Your task to perform on an android device: change timer sound Image 0: 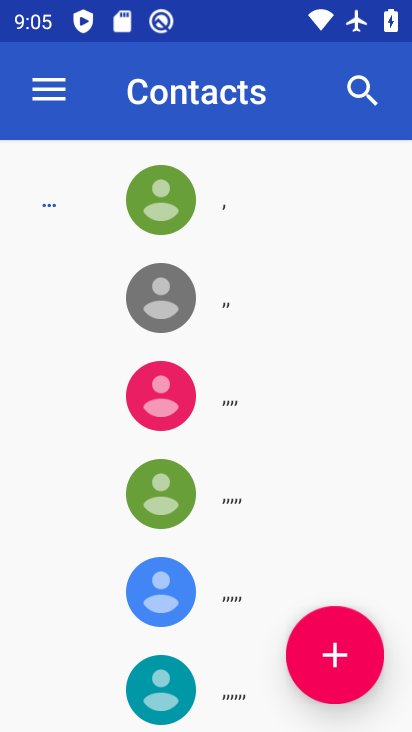
Step 0: press home button
Your task to perform on an android device: change timer sound Image 1: 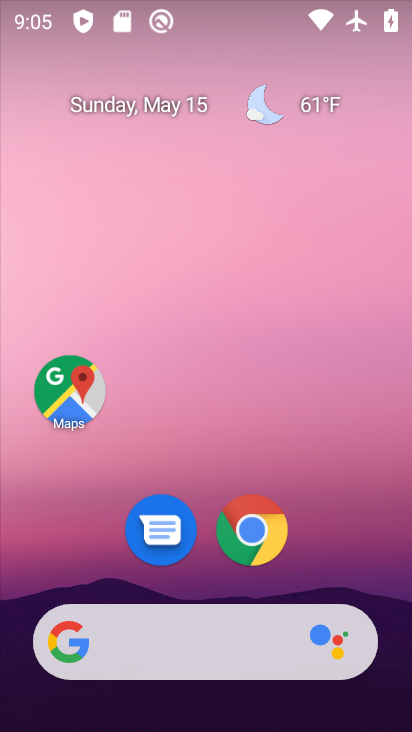
Step 1: drag from (213, 684) to (209, 113)
Your task to perform on an android device: change timer sound Image 2: 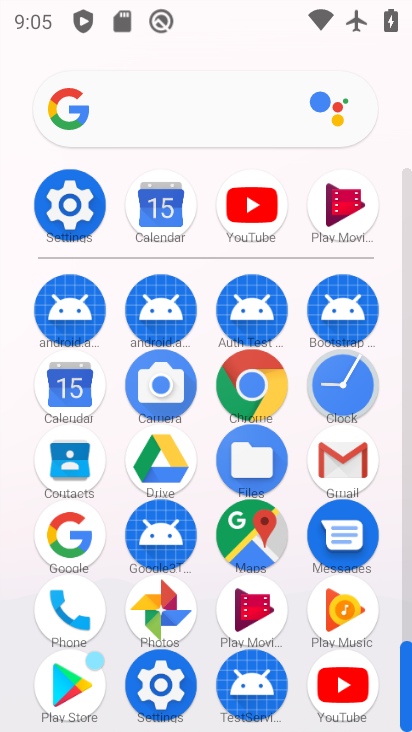
Step 2: click (349, 387)
Your task to perform on an android device: change timer sound Image 3: 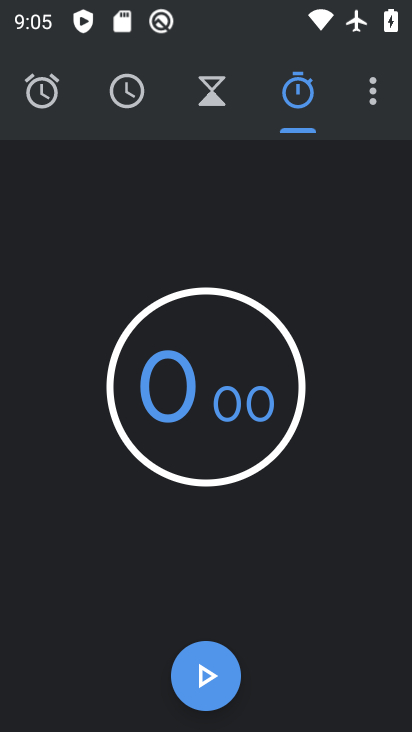
Step 3: click (373, 99)
Your task to perform on an android device: change timer sound Image 4: 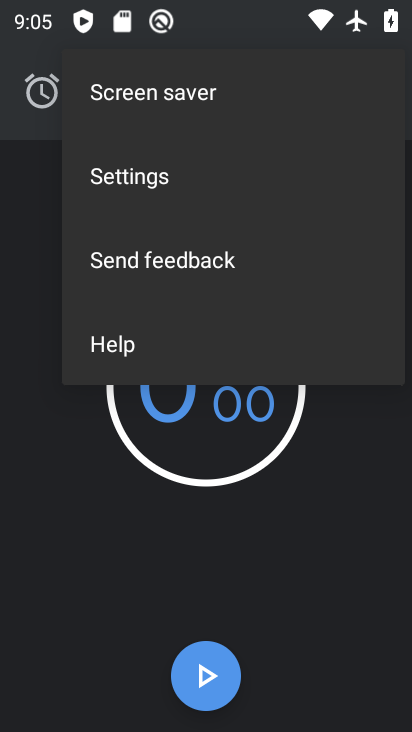
Step 4: click (147, 180)
Your task to perform on an android device: change timer sound Image 5: 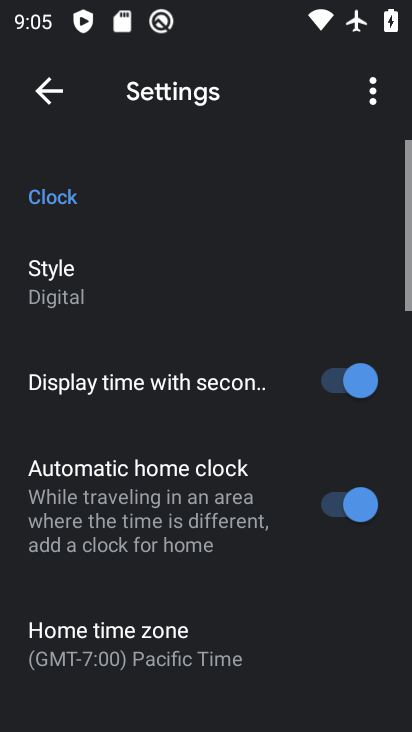
Step 5: drag from (61, 356) to (61, 192)
Your task to perform on an android device: change timer sound Image 6: 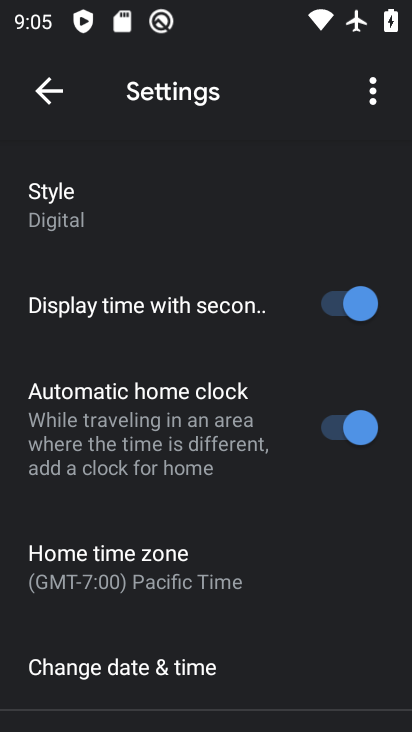
Step 6: drag from (114, 628) to (107, 173)
Your task to perform on an android device: change timer sound Image 7: 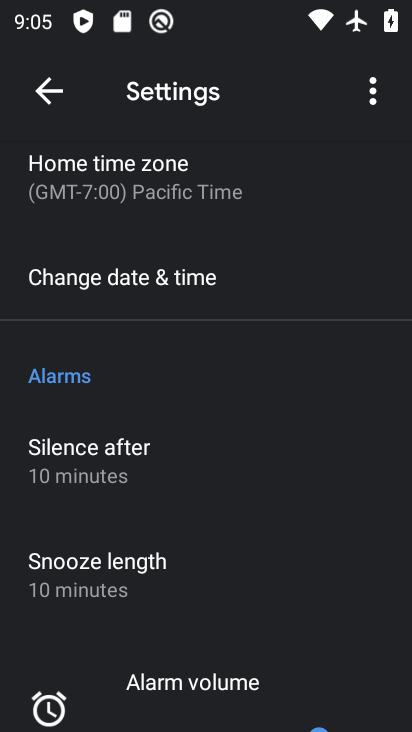
Step 7: drag from (95, 628) to (118, 274)
Your task to perform on an android device: change timer sound Image 8: 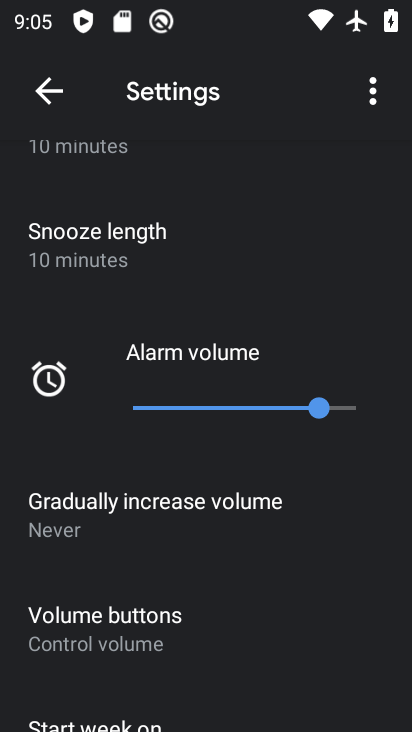
Step 8: drag from (213, 681) to (210, 372)
Your task to perform on an android device: change timer sound Image 9: 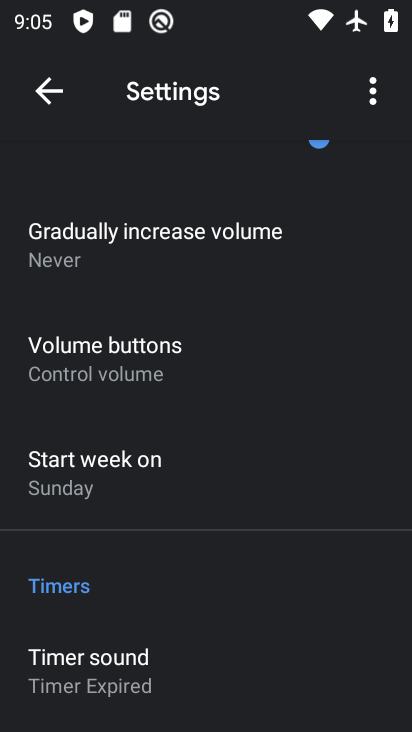
Step 9: click (136, 647)
Your task to perform on an android device: change timer sound Image 10: 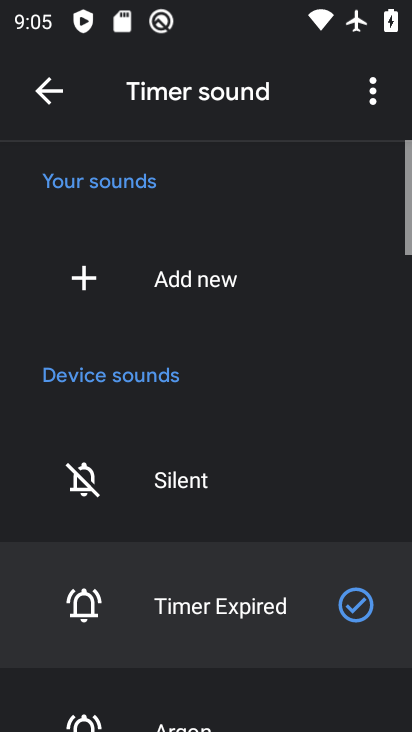
Step 10: drag from (174, 658) to (219, 264)
Your task to perform on an android device: change timer sound Image 11: 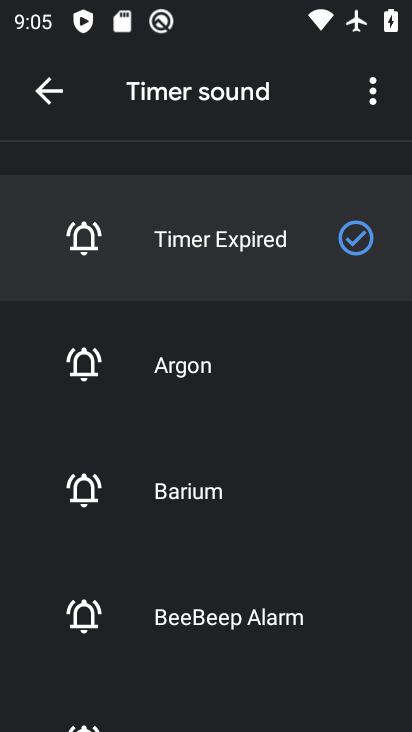
Step 11: click (176, 495)
Your task to perform on an android device: change timer sound Image 12: 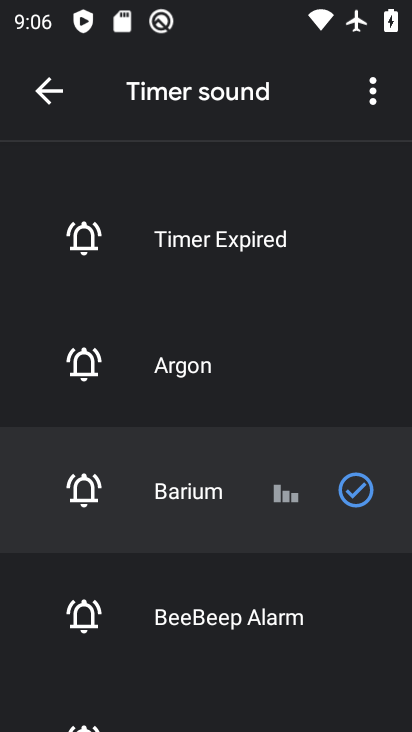
Step 12: task complete